Your task to perform on an android device: Open Wikipedia Image 0: 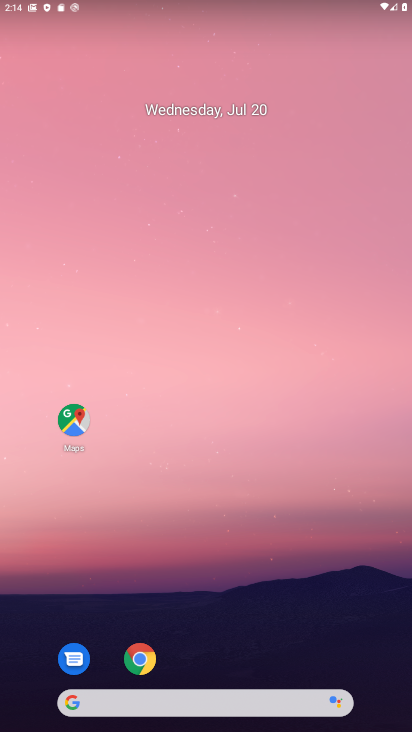
Step 0: click (144, 658)
Your task to perform on an android device: Open Wikipedia Image 1: 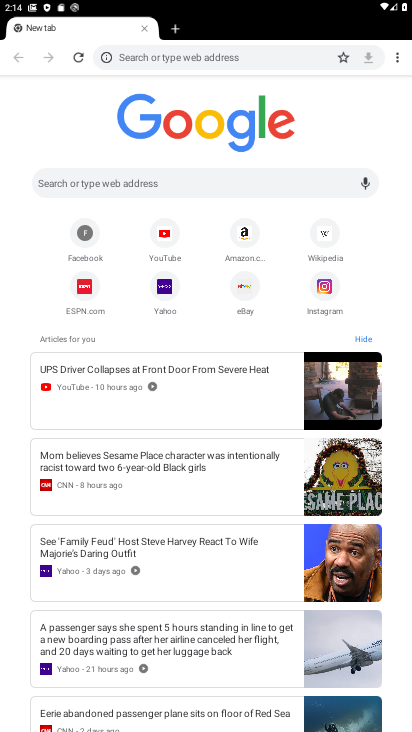
Step 1: click (334, 237)
Your task to perform on an android device: Open Wikipedia Image 2: 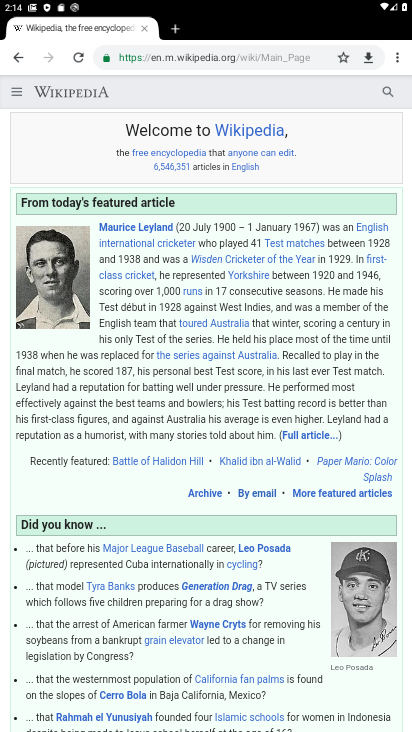
Step 2: task complete